Your task to perform on an android device: Show the shopping cart on amazon.com. Add asus rog to the cart on amazon.com Image 0: 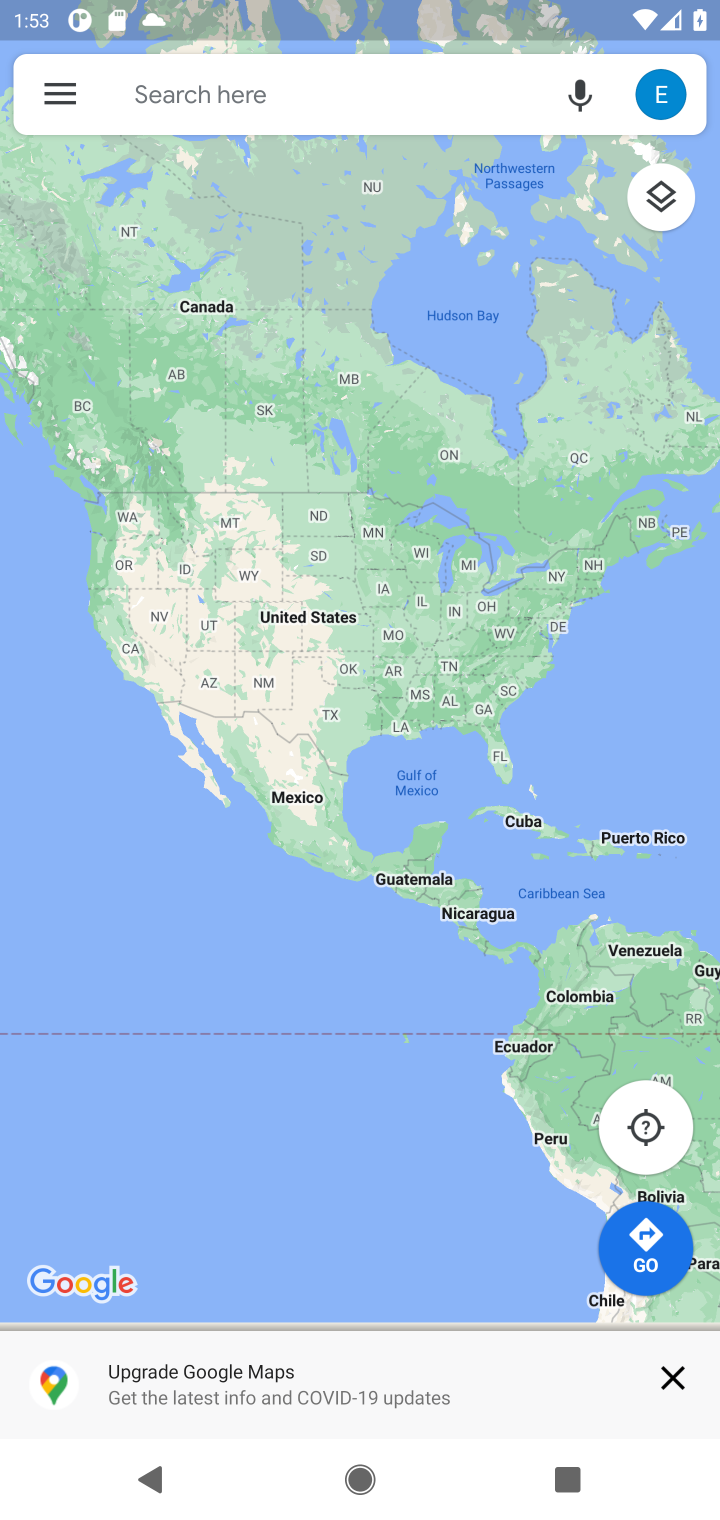
Step 0: press home button
Your task to perform on an android device: Show the shopping cart on amazon.com. Add asus rog to the cart on amazon.com Image 1: 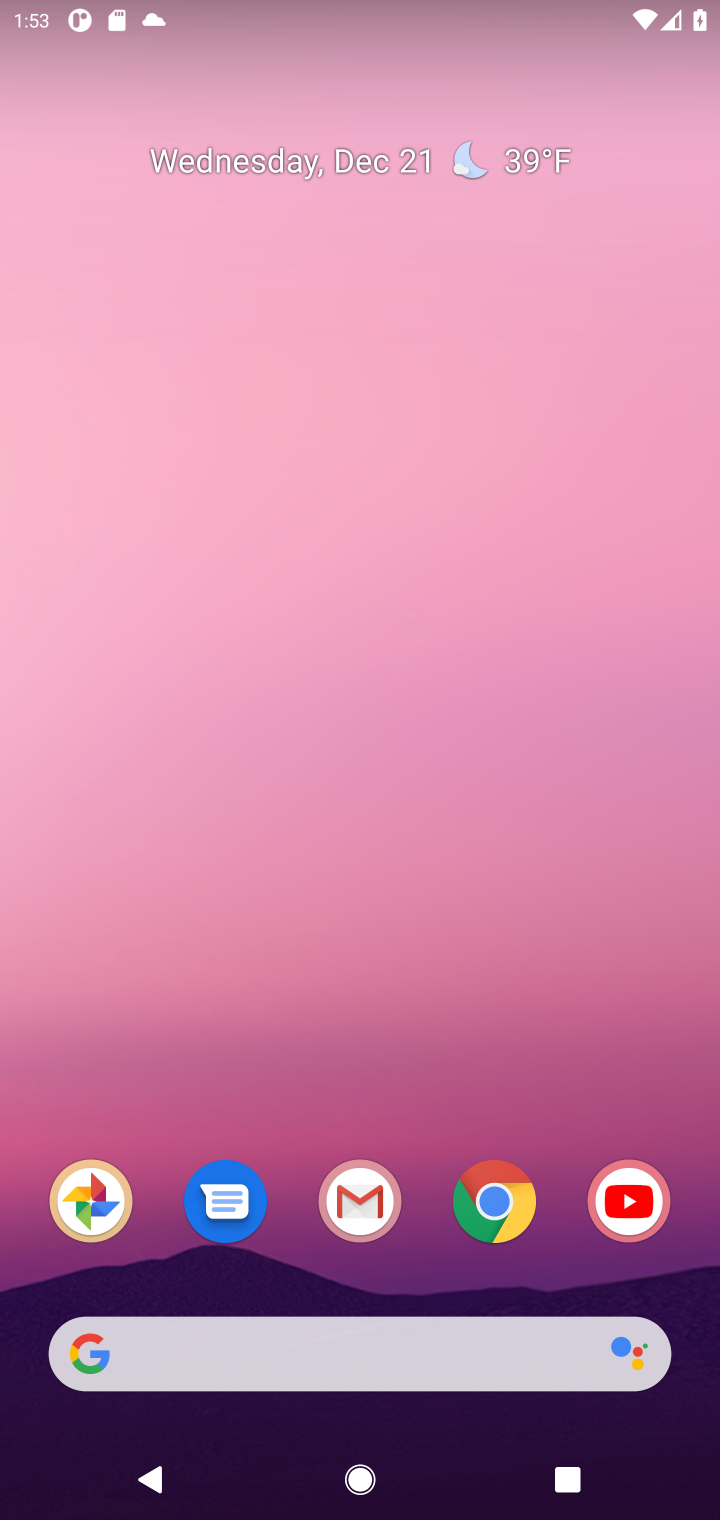
Step 1: click (498, 1213)
Your task to perform on an android device: Show the shopping cart on amazon.com. Add asus rog to the cart on amazon.com Image 2: 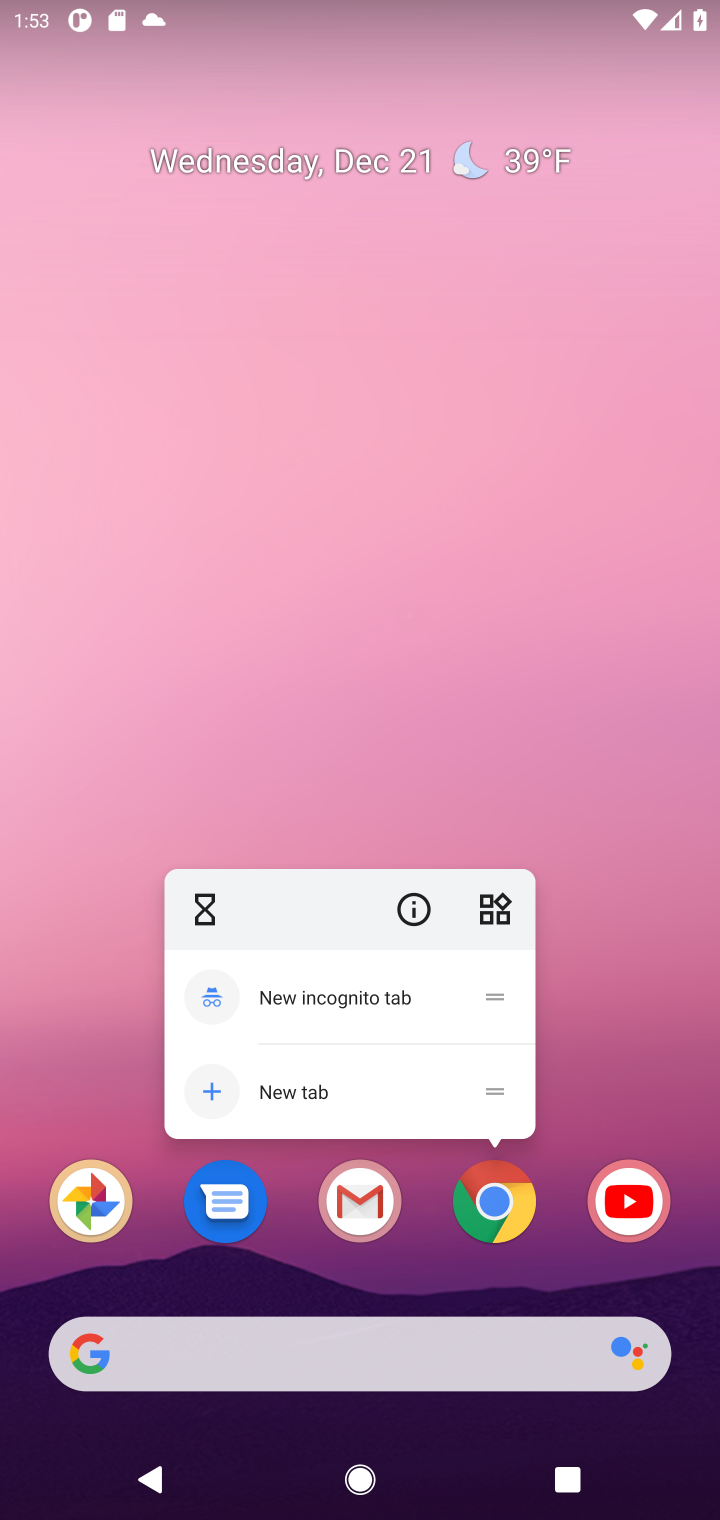
Step 2: click (498, 1213)
Your task to perform on an android device: Show the shopping cart on amazon.com. Add asus rog to the cart on amazon.com Image 3: 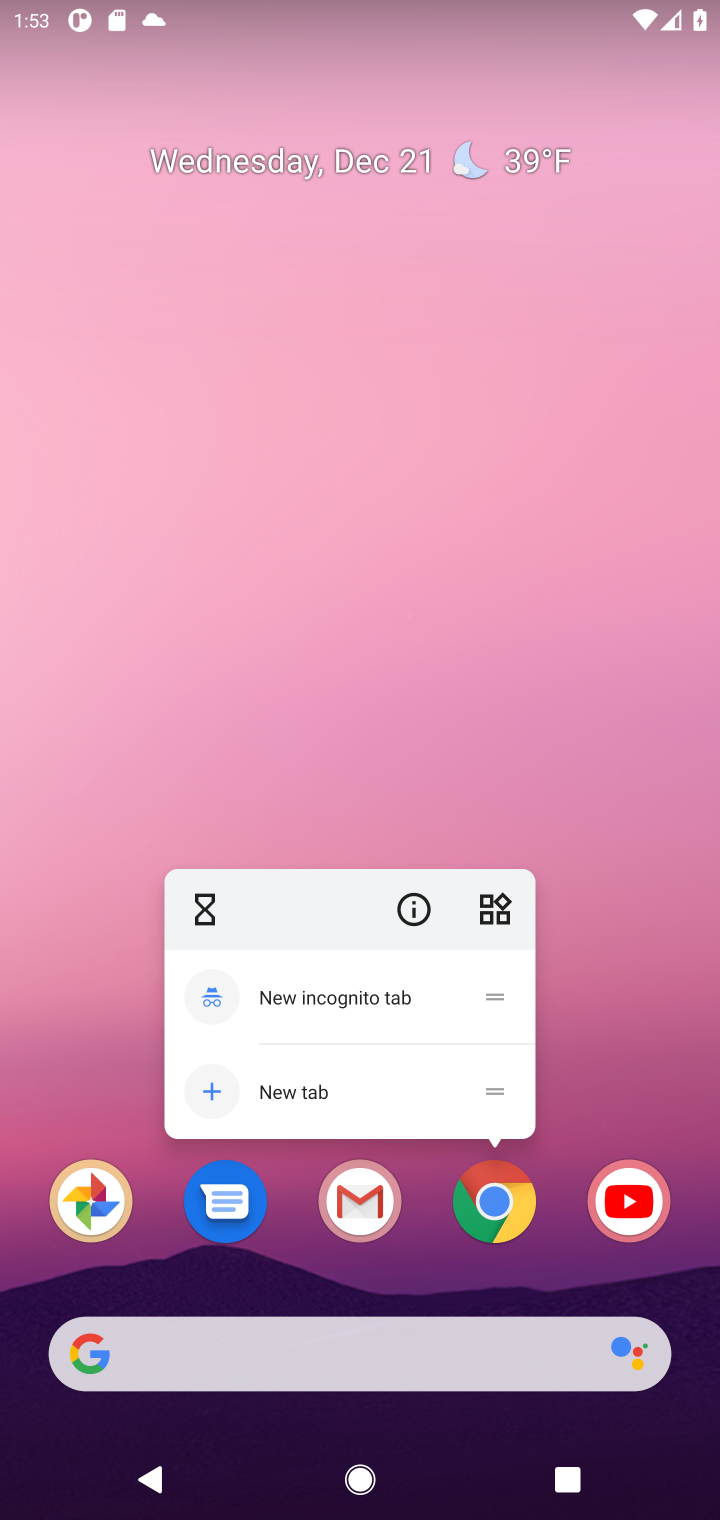
Step 3: click (498, 1213)
Your task to perform on an android device: Show the shopping cart on amazon.com. Add asus rog to the cart on amazon.com Image 4: 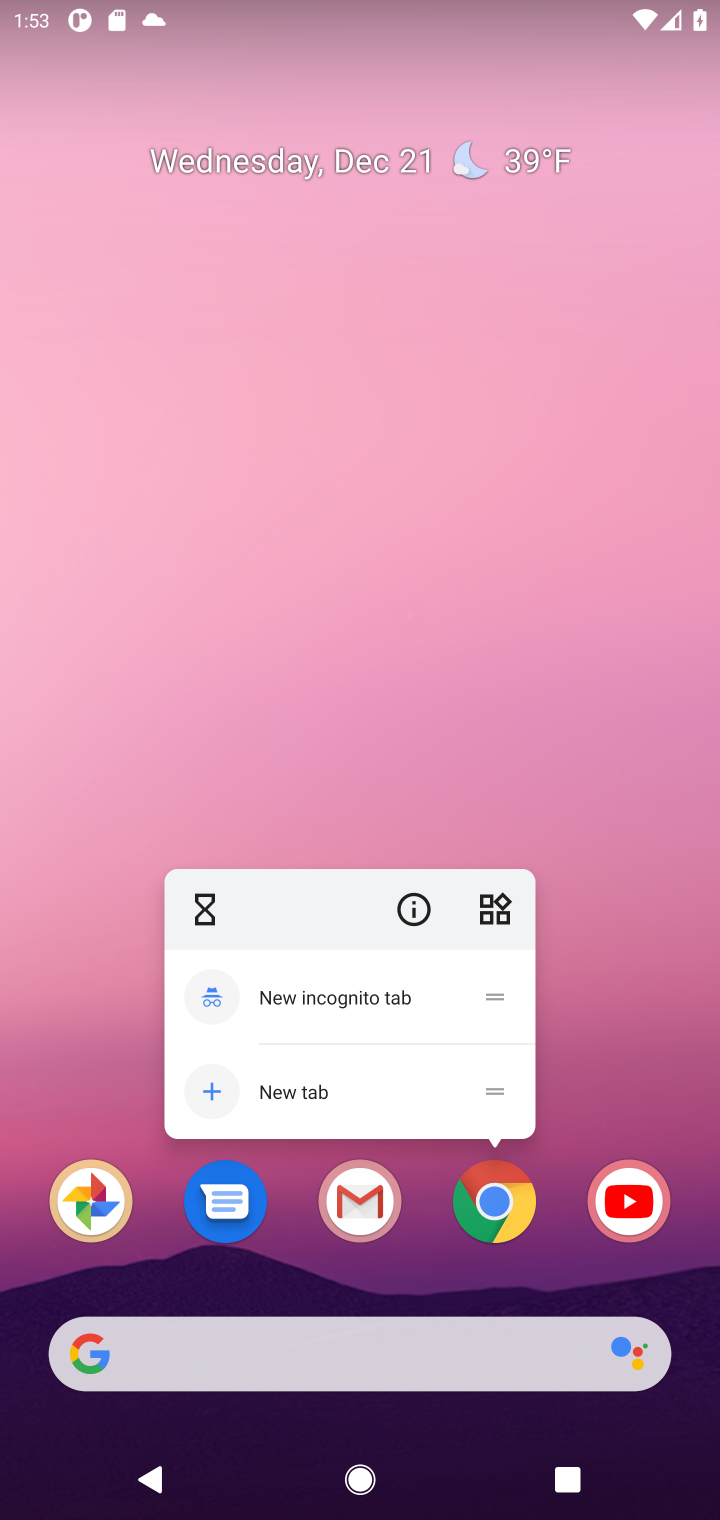
Step 4: click (496, 1213)
Your task to perform on an android device: Show the shopping cart on amazon.com. Add asus rog to the cart on amazon.com Image 5: 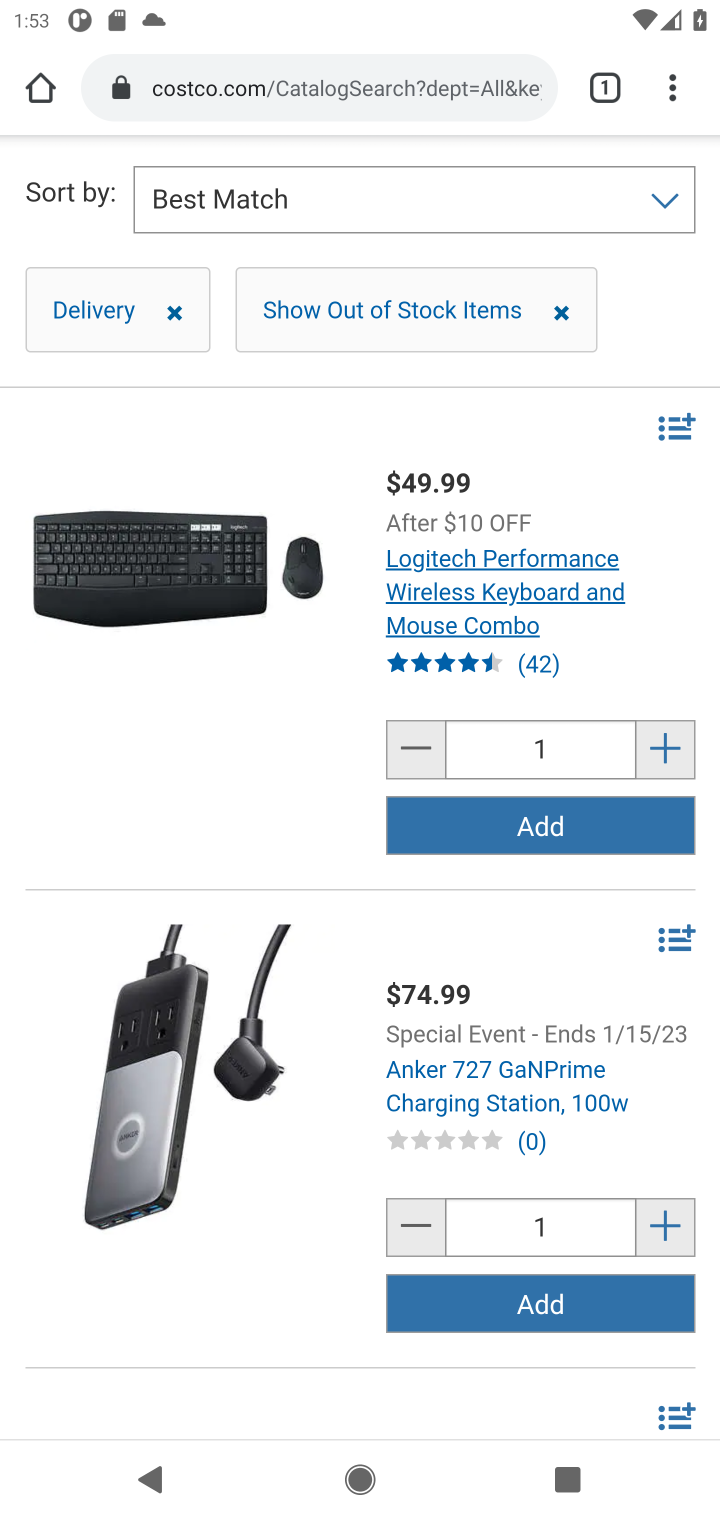
Step 5: click (258, 96)
Your task to perform on an android device: Show the shopping cart on amazon.com. Add asus rog to the cart on amazon.com Image 6: 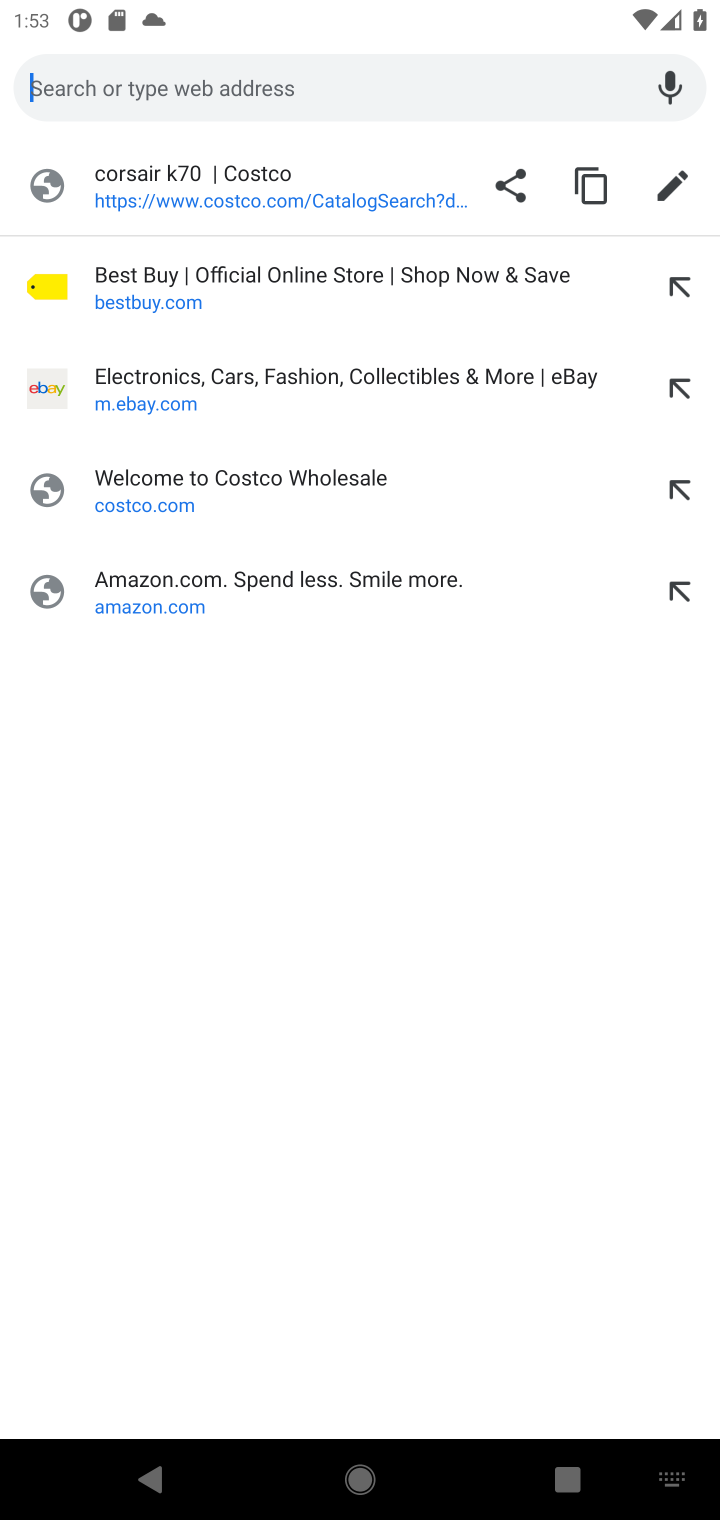
Step 6: click (153, 585)
Your task to perform on an android device: Show the shopping cart on amazon.com. Add asus rog to the cart on amazon.com Image 7: 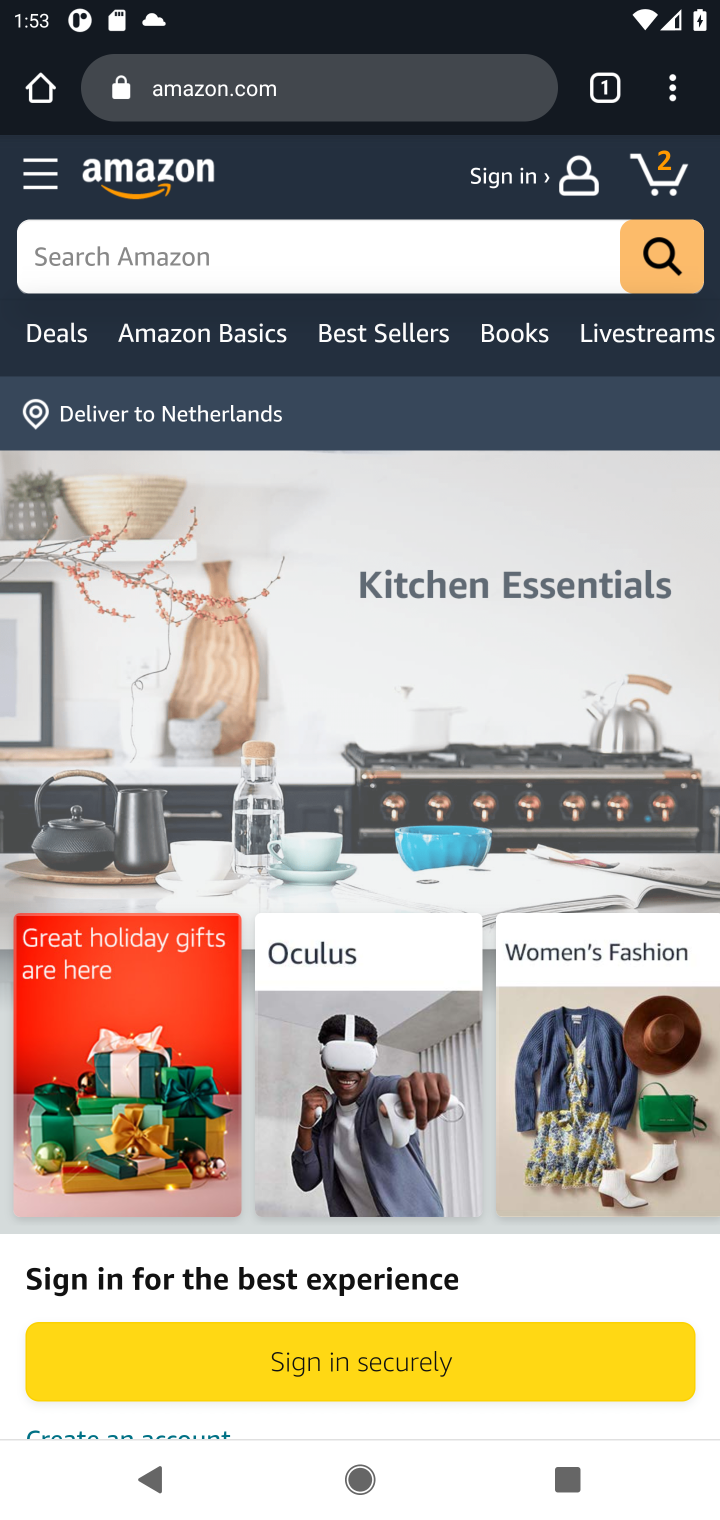
Step 7: click (657, 172)
Your task to perform on an android device: Show the shopping cart on amazon.com. Add asus rog to the cart on amazon.com Image 8: 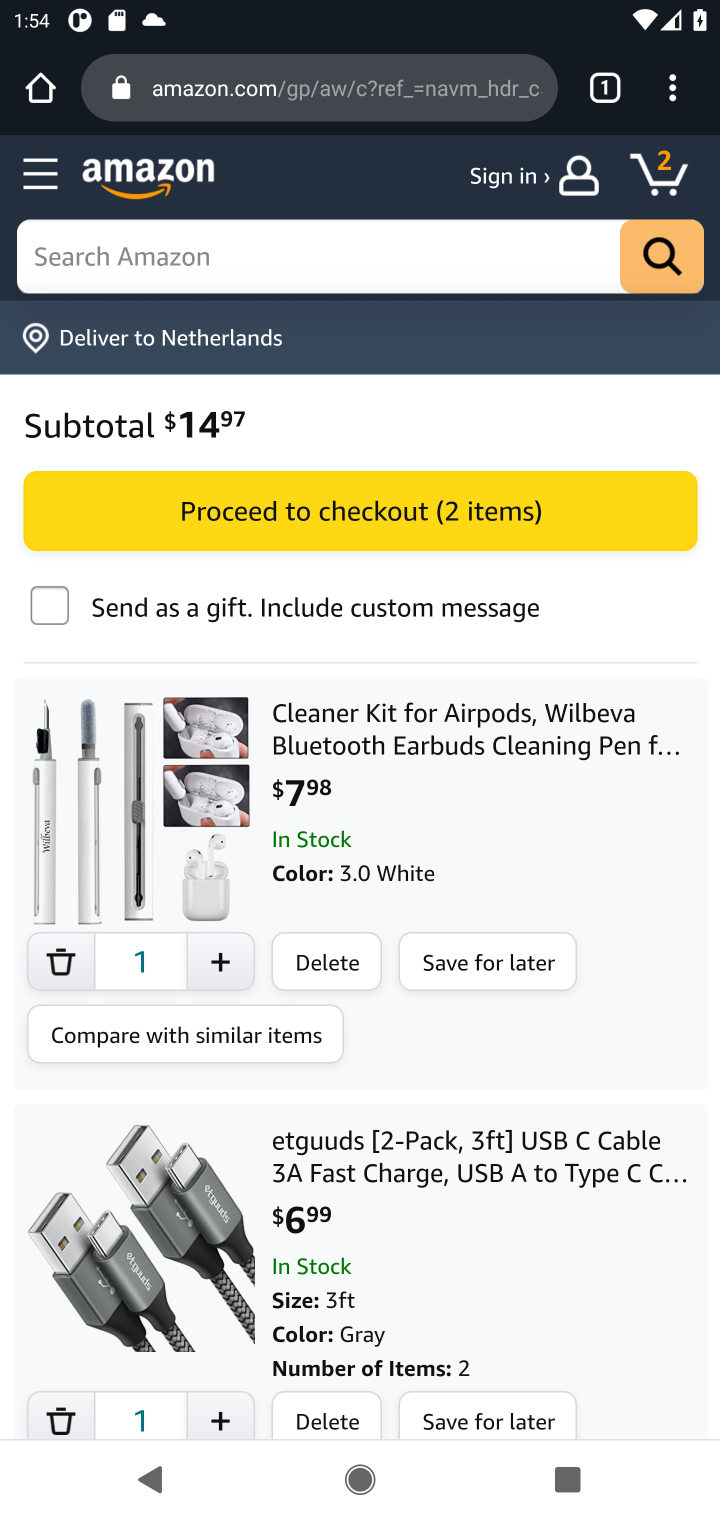
Step 8: click (72, 254)
Your task to perform on an android device: Show the shopping cart on amazon.com. Add asus rog to the cart on amazon.com Image 9: 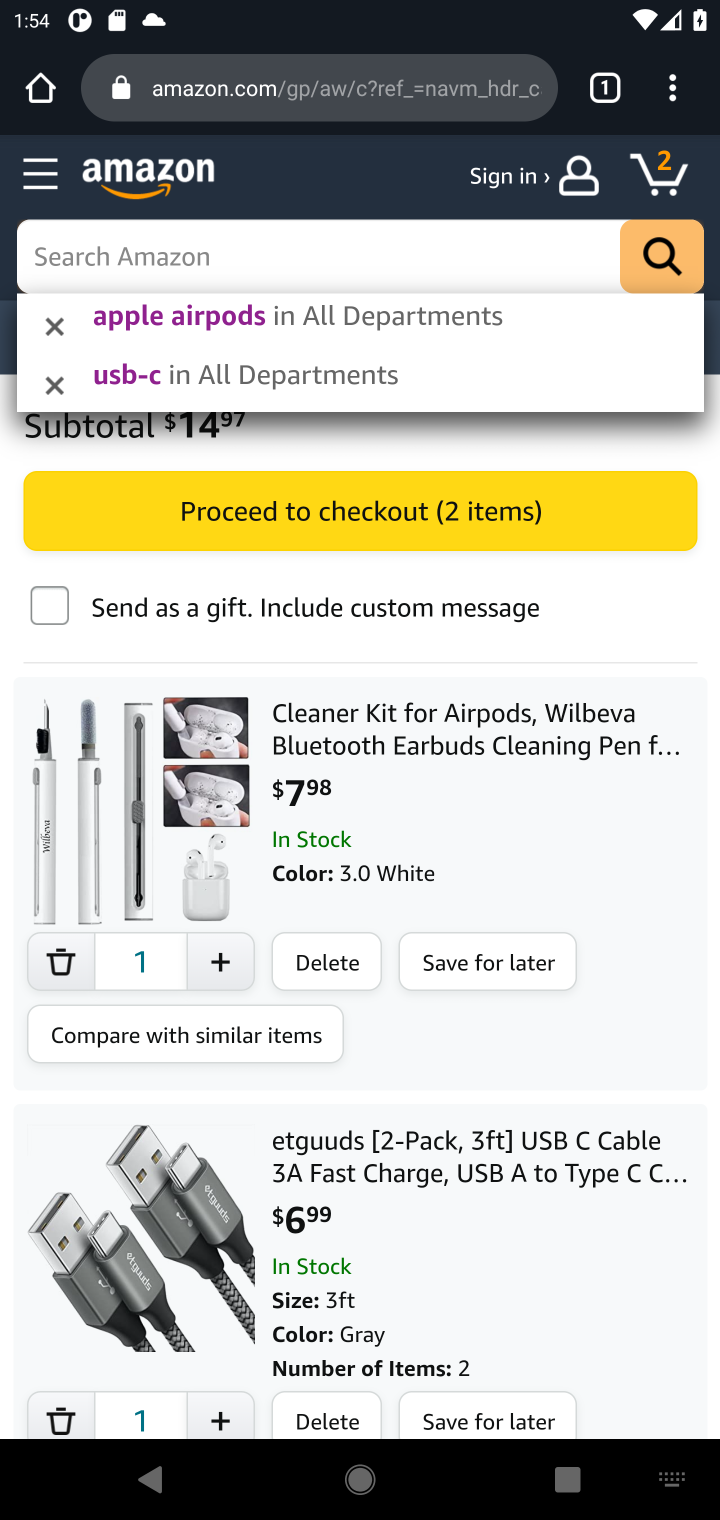
Step 9: type "asus rog "
Your task to perform on an android device: Show the shopping cart on amazon.com. Add asus rog to the cart on amazon.com Image 10: 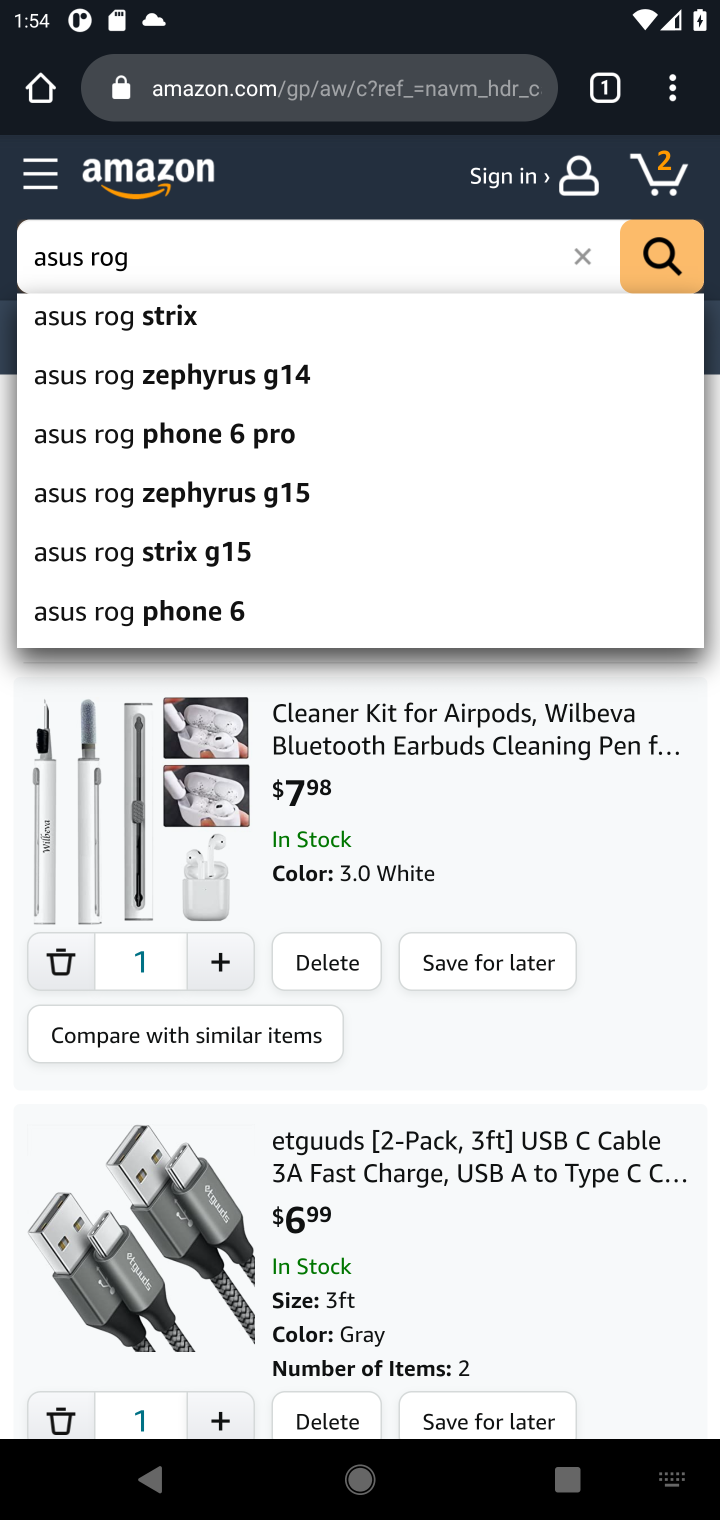
Step 10: click (669, 249)
Your task to perform on an android device: Show the shopping cart on amazon.com. Add asus rog to the cart on amazon.com Image 11: 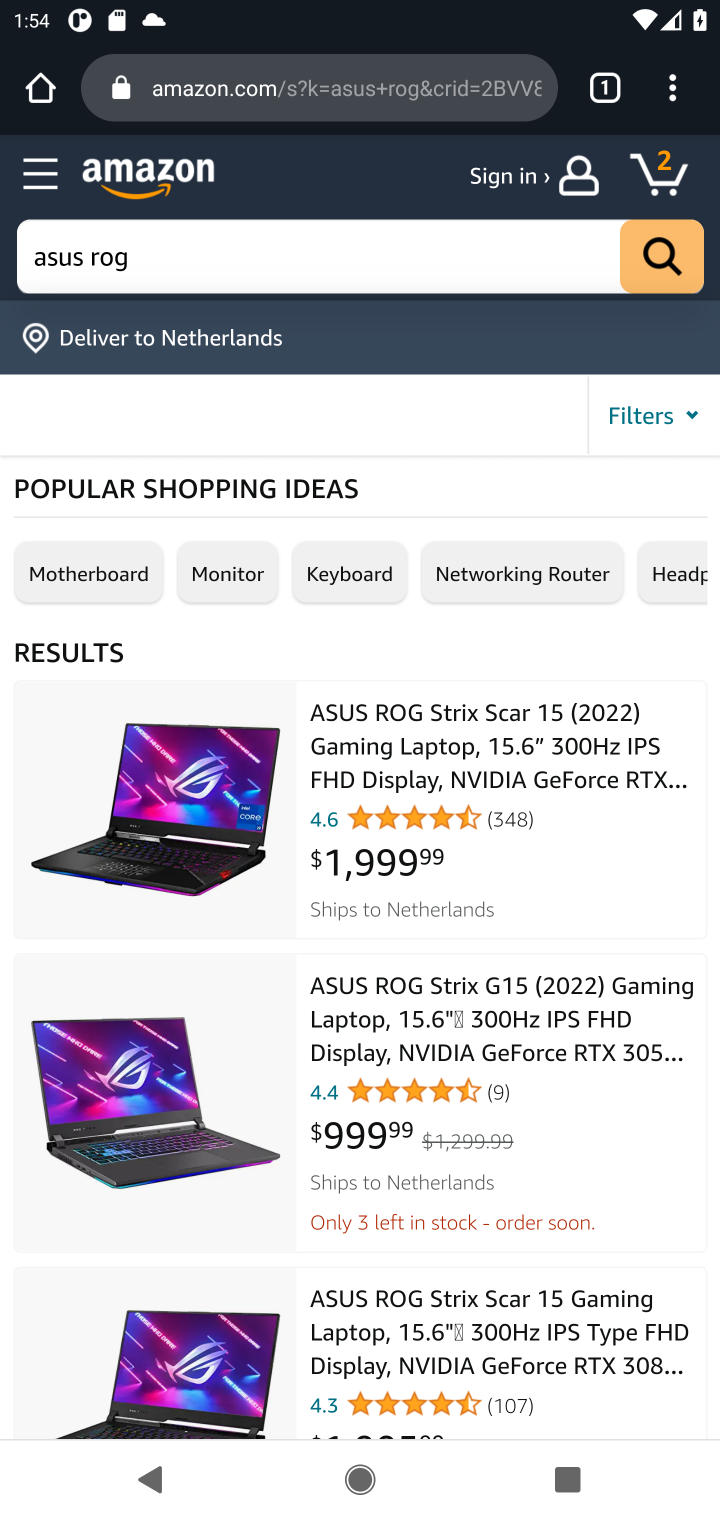
Step 11: click (378, 784)
Your task to perform on an android device: Show the shopping cart on amazon.com. Add asus rog to the cart on amazon.com Image 12: 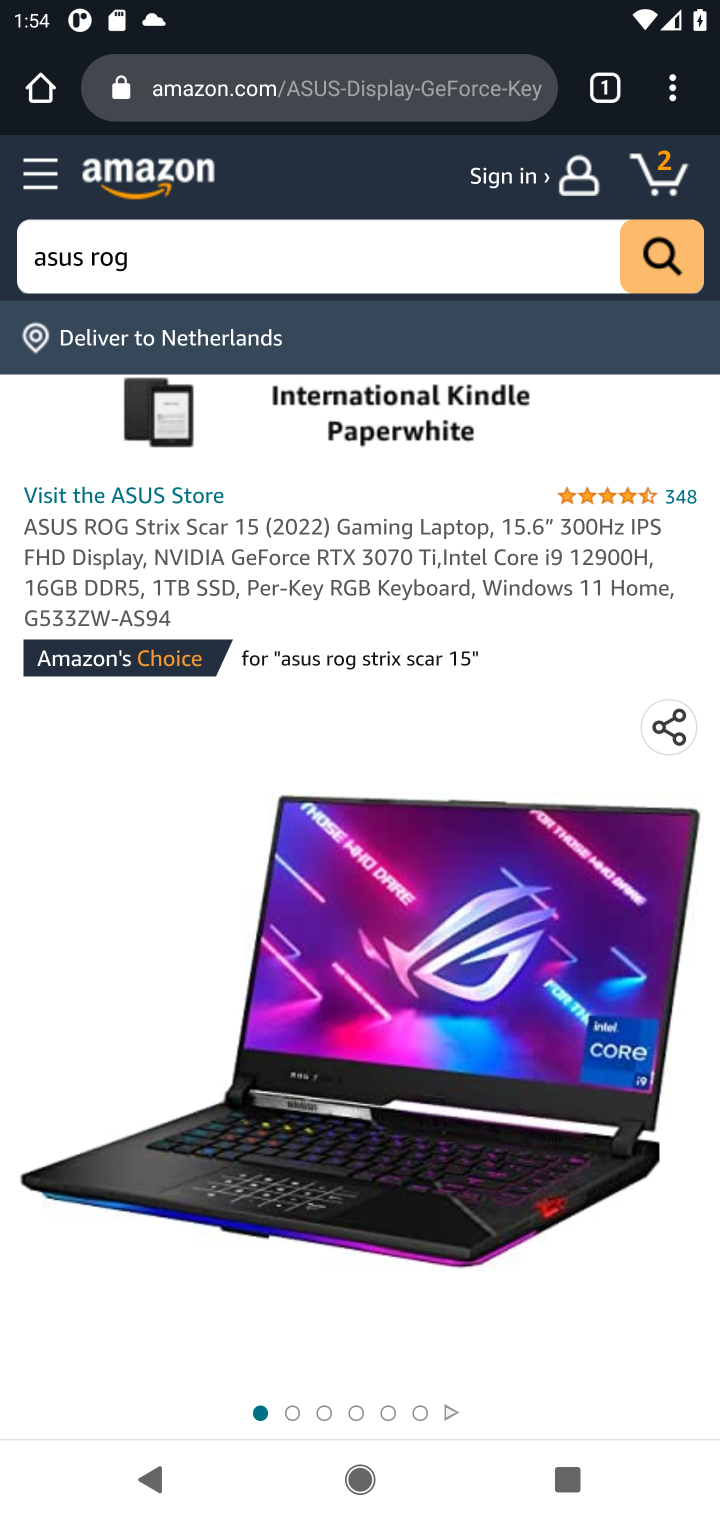
Step 12: drag from (351, 955) to (346, 486)
Your task to perform on an android device: Show the shopping cart on amazon.com. Add asus rog to the cart on amazon.com Image 13: 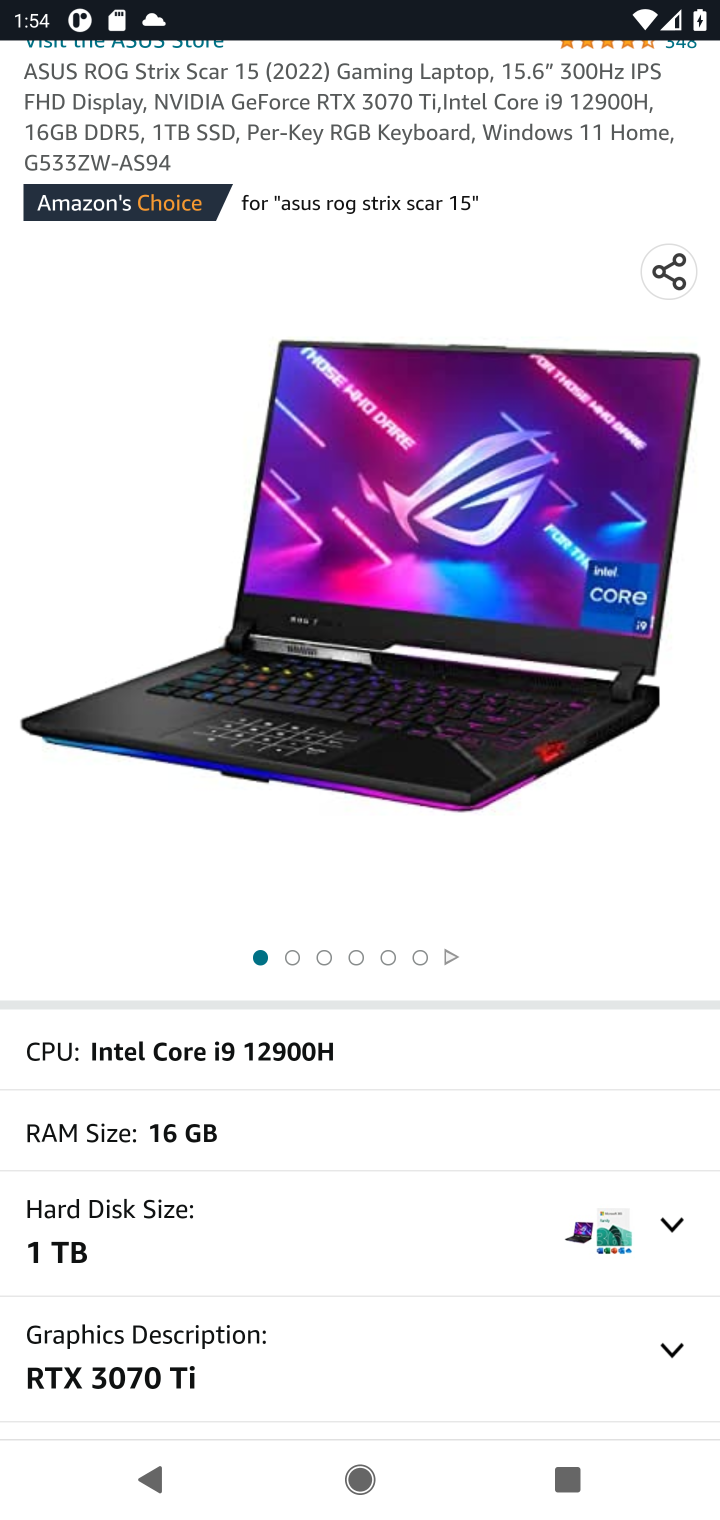
Step 13: drag from (353, 906) to (326, 418)
Your task to perform on an android device: Show the shopping cart on amazon.com. Add asus rog to the cart on amazon.com Image 14: 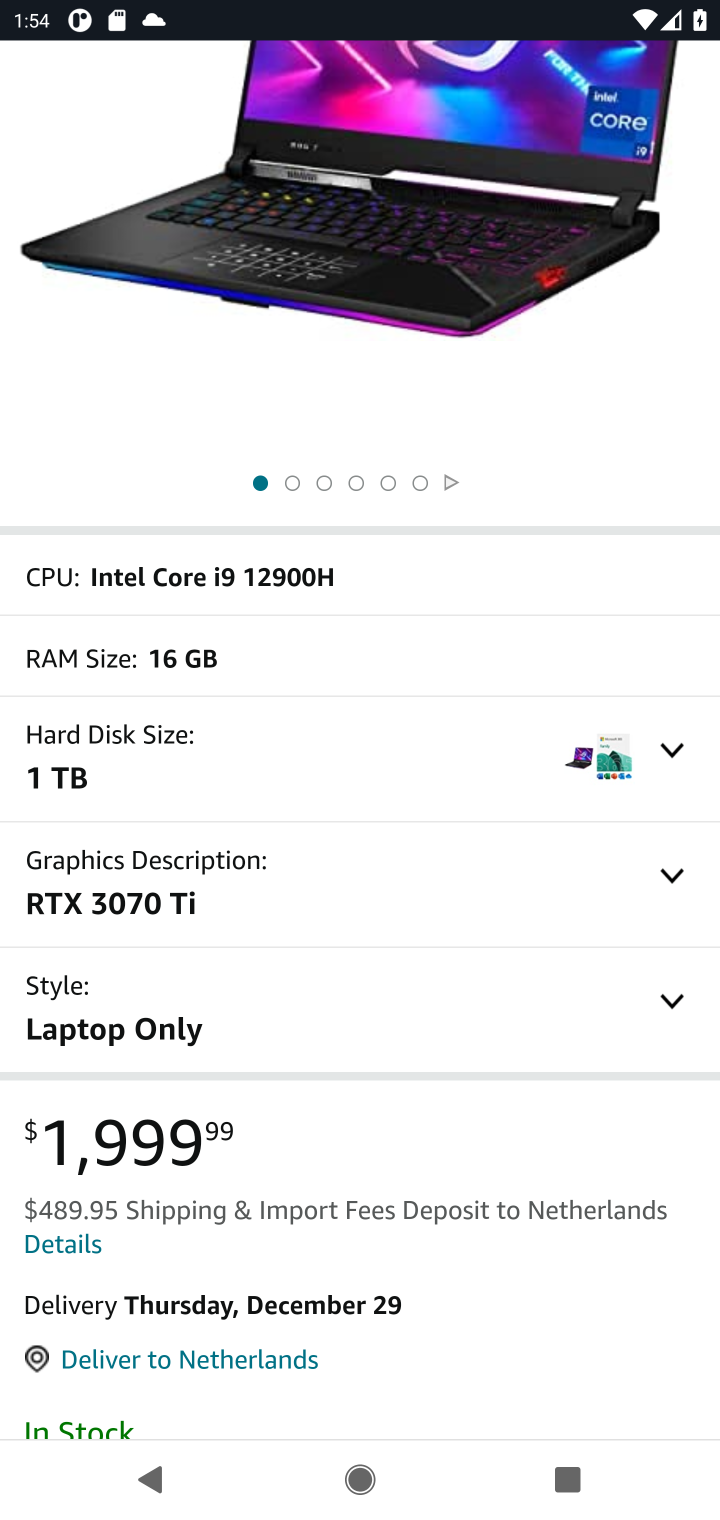
Step 14: drag from (284, 1170) to (304, 803)
Your task to perform on an android device: Show the shopping cart on amazon.com. Add asus rog to the cart on amazon.com Image 15: 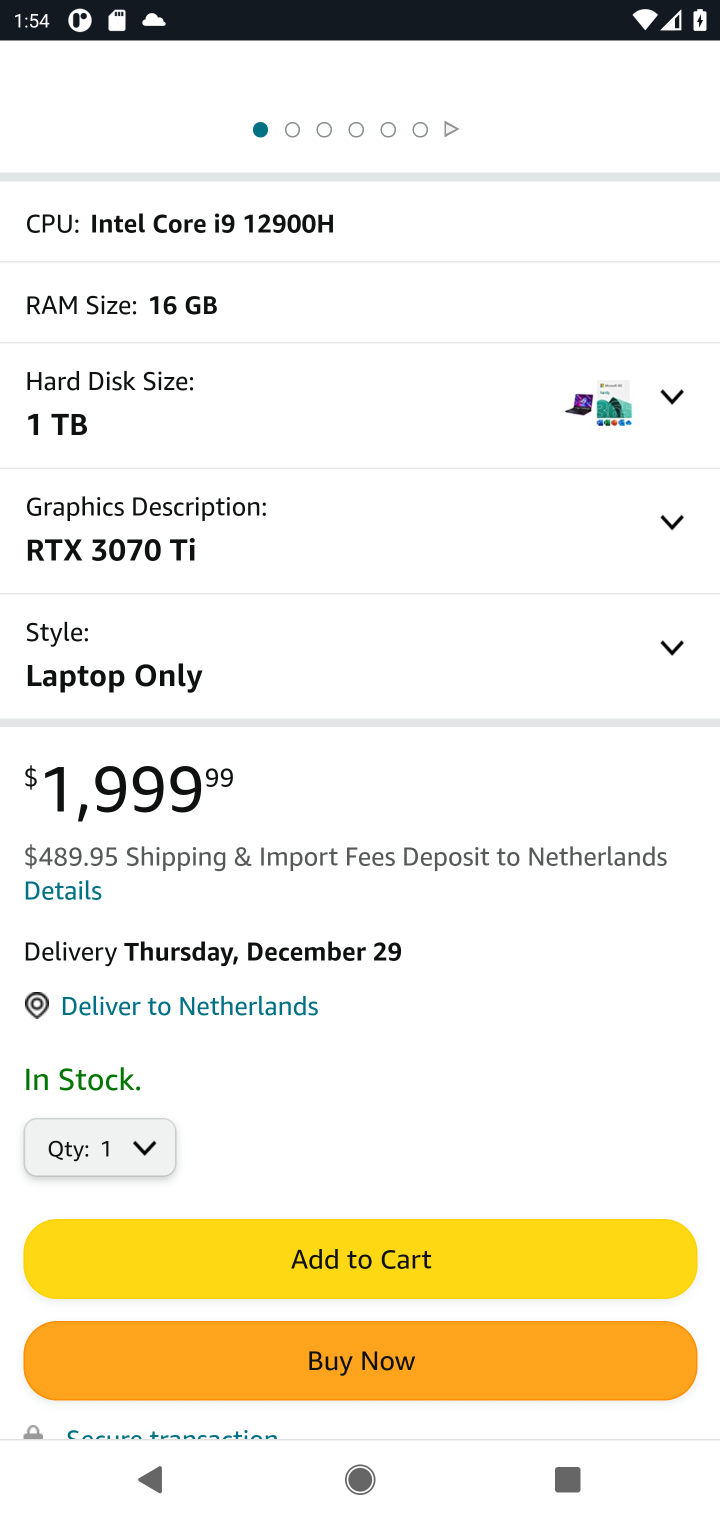
Step 15: click (308, 1240)
Your task to perform on an android device: Show the shopping cart on amazon.com. Add asus rog to the cart on amazon.com Image 16: 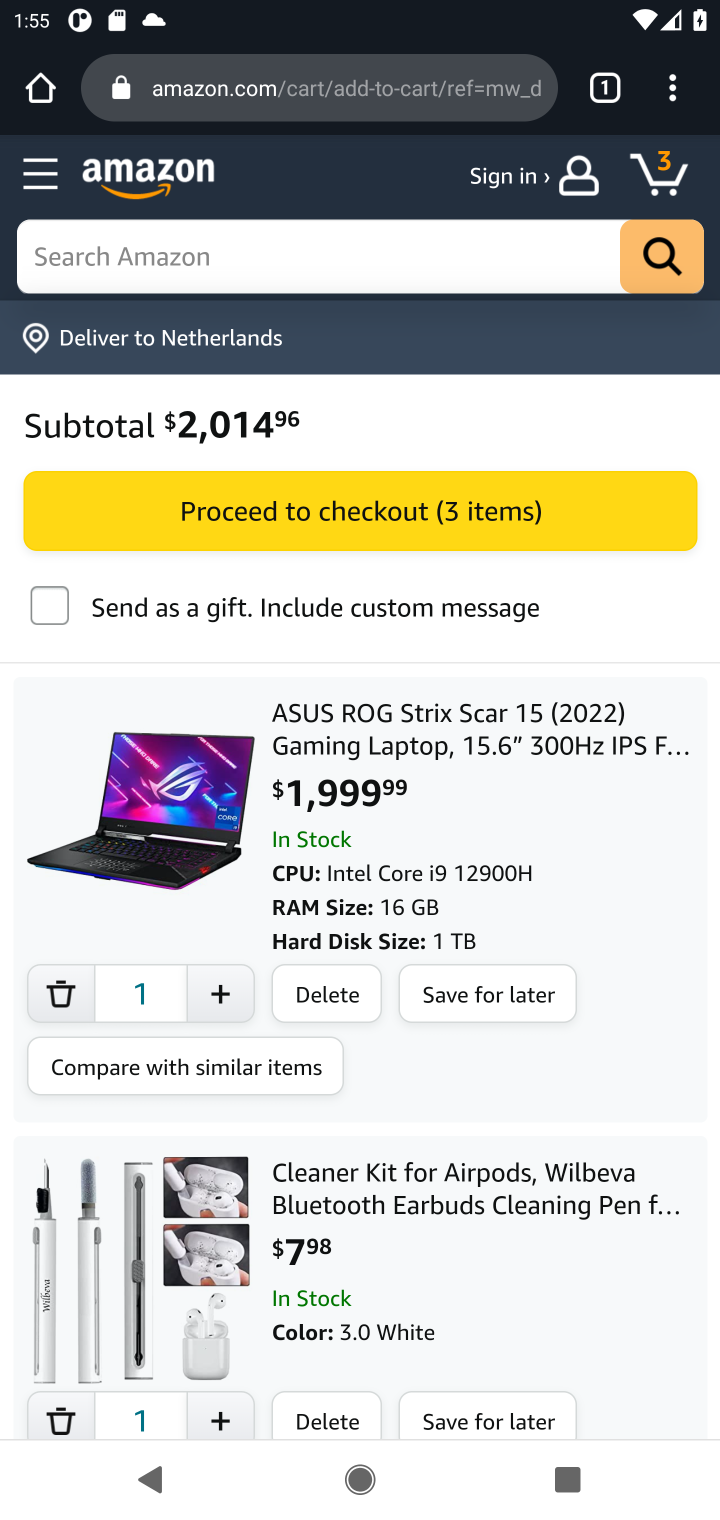
Step 16: task complete